Your task to perform on an android device: Play the last video I watched on Youtube Image 0: 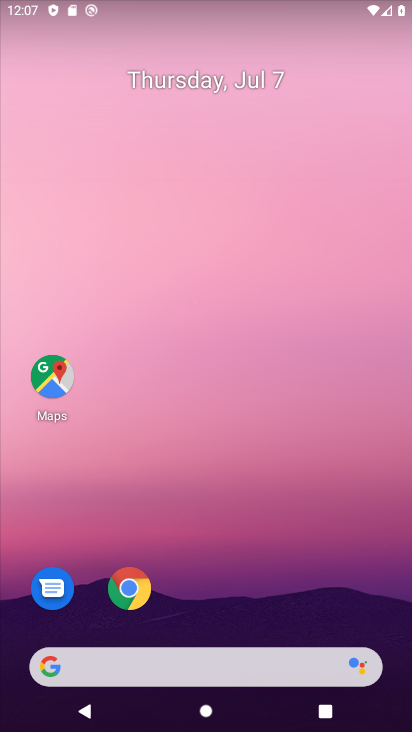
Step 0: drag from (177, 603) to (194, 296)
Your task to perform on an android device: Play the last video I watched on Youtube Image 1: 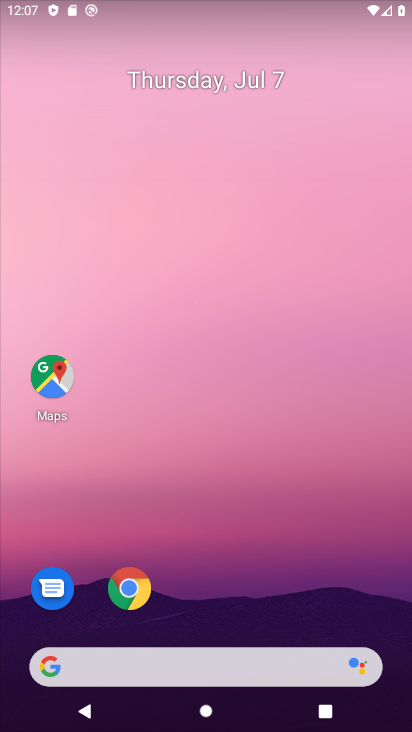
Step 1: drag from (209, 577) to (313, 134)
Your task to perform on an android device: Play the last video I watched on Youtube Image 2: 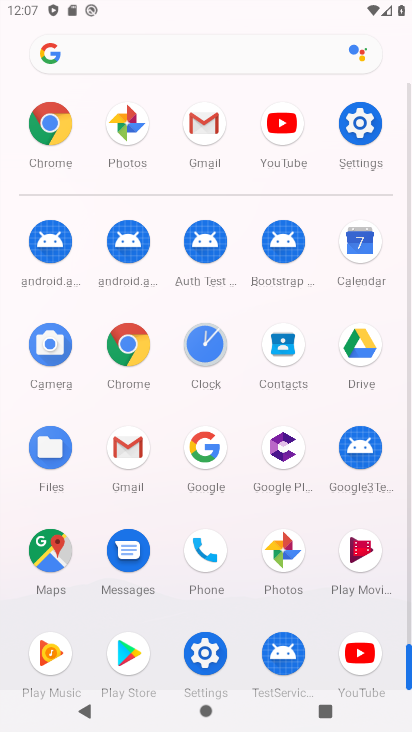
Step 2: click (368, 650)
Your task to perform on an android device: Play the last video I watched on Youtube Image 3: 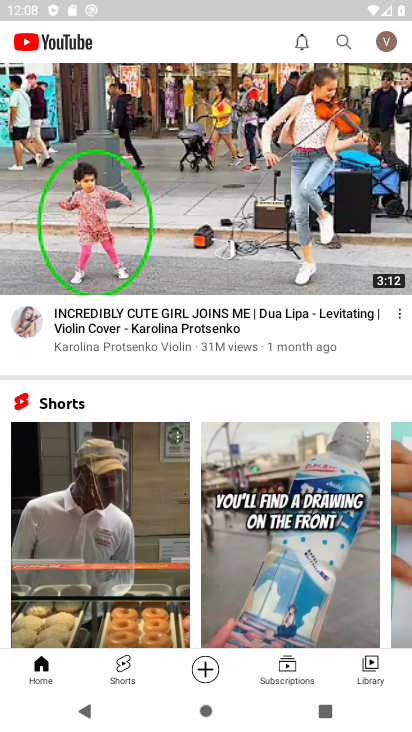
Step 3: click (368, 668)
Your task to perform on an android device: Play the last video I watched on Youtube Image 4: 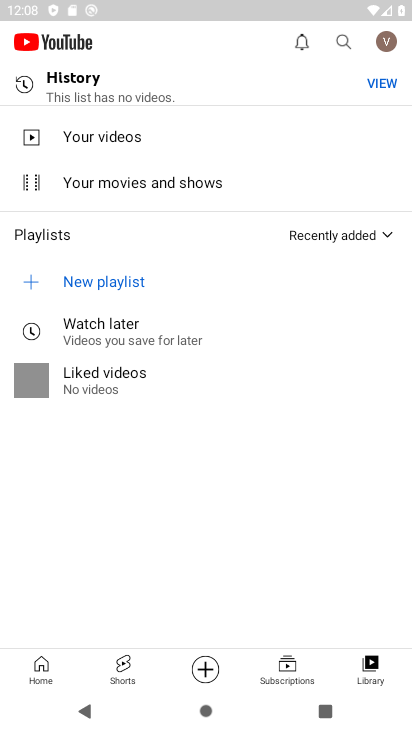
Step 4: drag from (99, 167) to (190, 714)
Your task to perform on an android device: Play the last video I watched on Youtube Image 5: 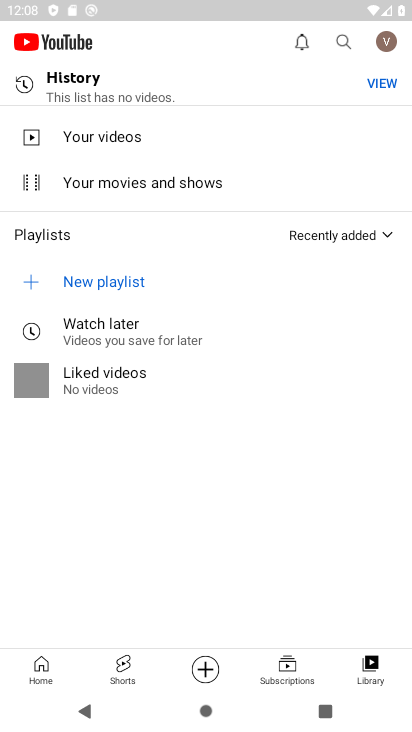
Step 5: click (372, 672)
Your task to perform on an android device: Play the last video I watched on Youtube Image 6: 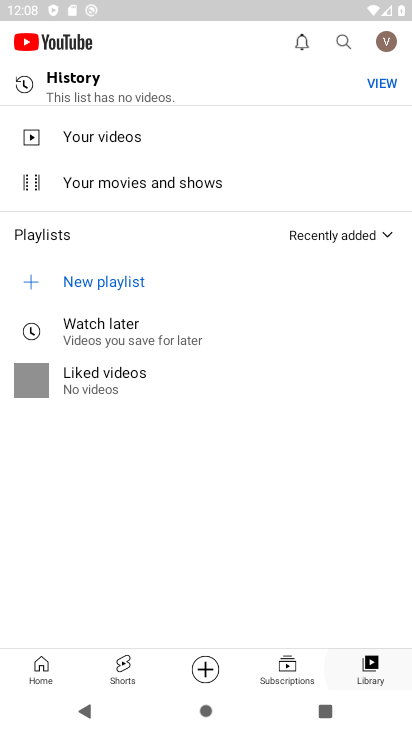
Step 6: drag from (161, 361) to (168, 716)
Your task to perform on an android device: Play the last video I watched on Youtube Image 7: 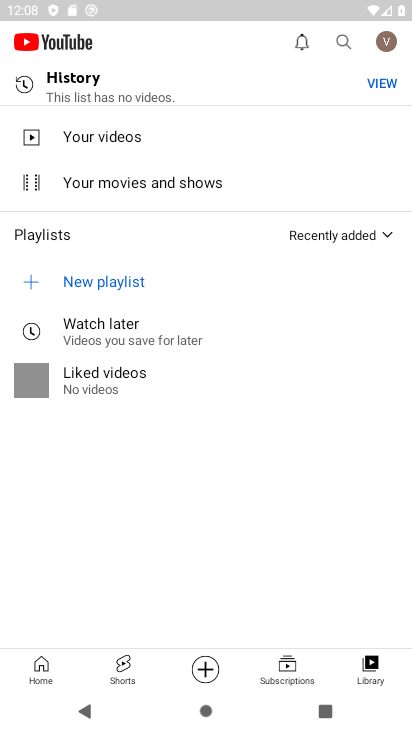
Step 7: click (384, 675)
Your task to perform on an android device: Play the last video I watched on Youtube Image 8: 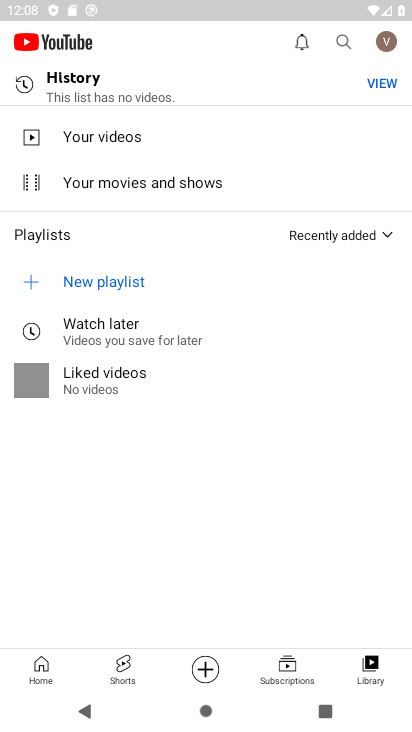
Step 8: click (63, 79)
Your task to perform on an android device: Play the last video I watched on Youtube Image 9: 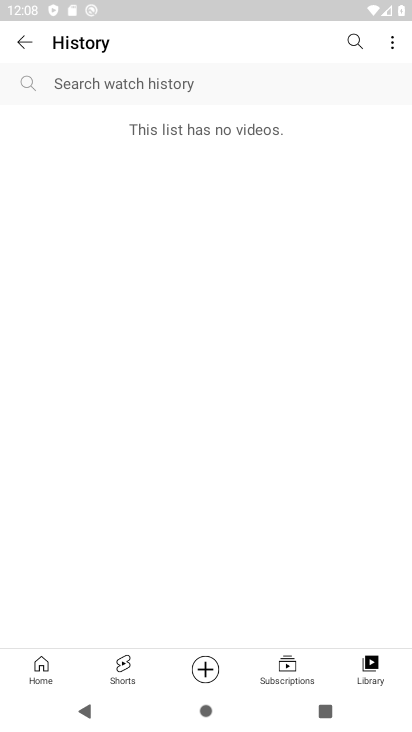
Step 9: click (183, 150)
Your task to perform on an android device: Play the last video I watched on Youtube Image 10: 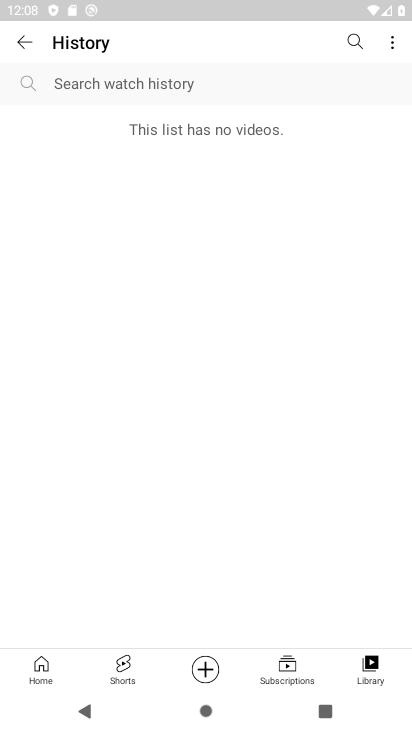
Step 10: task complete